Your task to perform on an android device: Open calendar and show me the second week of next month Image 0: 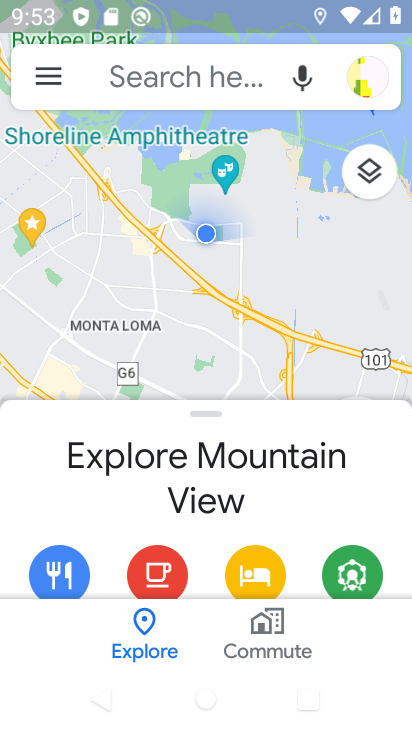
Step 0: press home button
Your task to perform on an android device: Open calendar and show me the second week of next month Image 1: 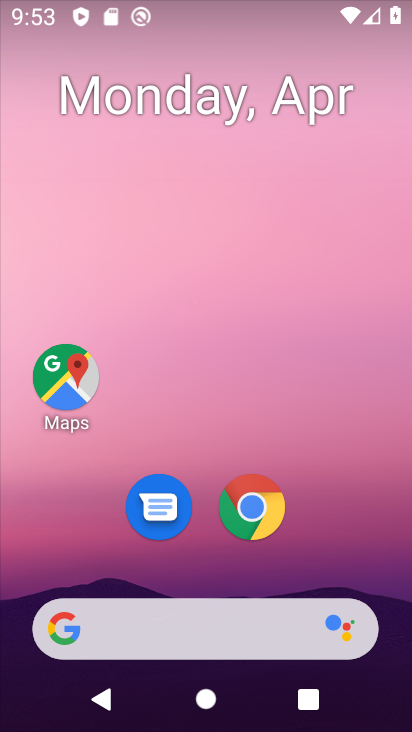
Step 1: drag from (340, 512) to (304, 84)
Your task to perform on an android device: Open calendar and show me the second week of next month Image 2: 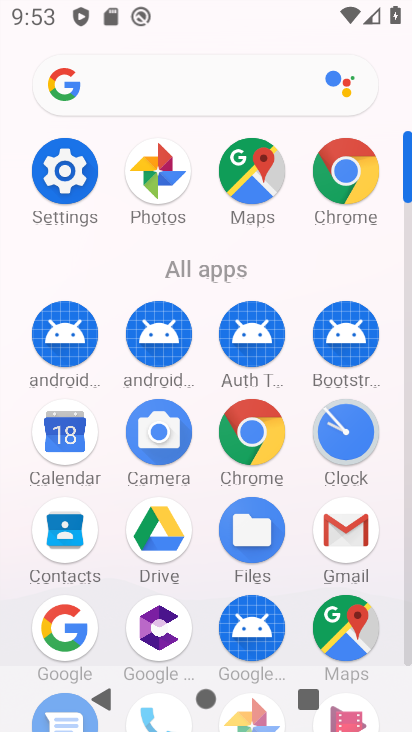
Step 2: click (68, 442)
Your task to perform on an android device: Open calendar and show me the second week of next month Image 3: 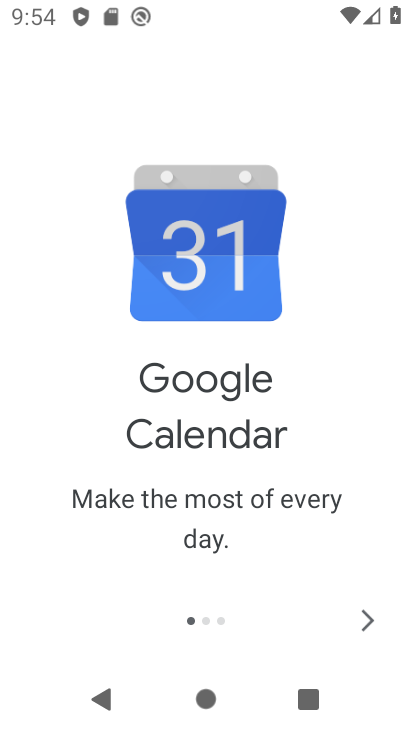
Step 3: click (359, 610)
Your task to perform on an android device: Open calendar and show me the second week of next month Image 4: 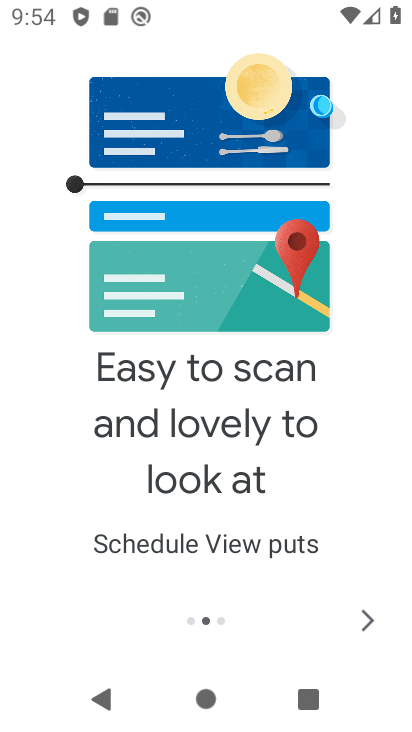
Step 4: click (359, 610)
Your task to perform on an android device: Open calendar and show me the second week of next month Image 5: 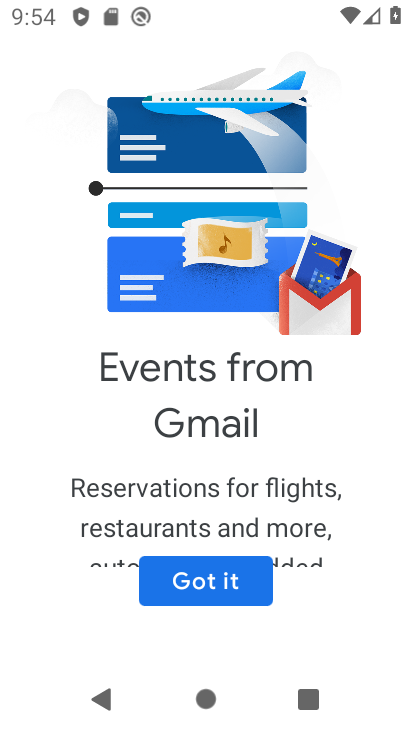
Step 5: click (244, 600)
Your task to perform on an android device: Open calendar and show me the second week of next month Image 6: 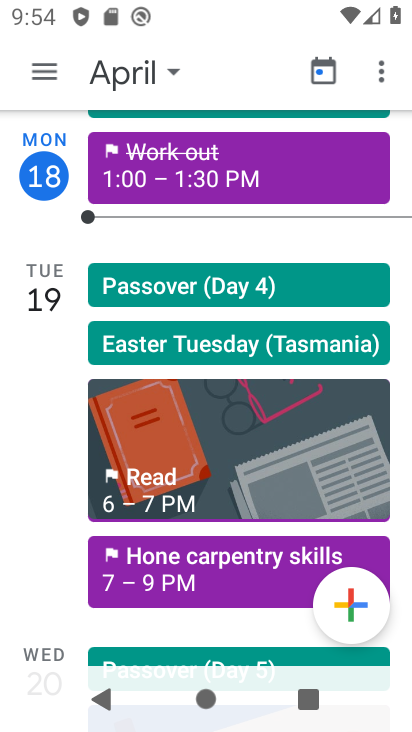
Step 6: click (136, 83)
Your task to perform on an android device: Open calendar and show me the second week of next month Image 7: 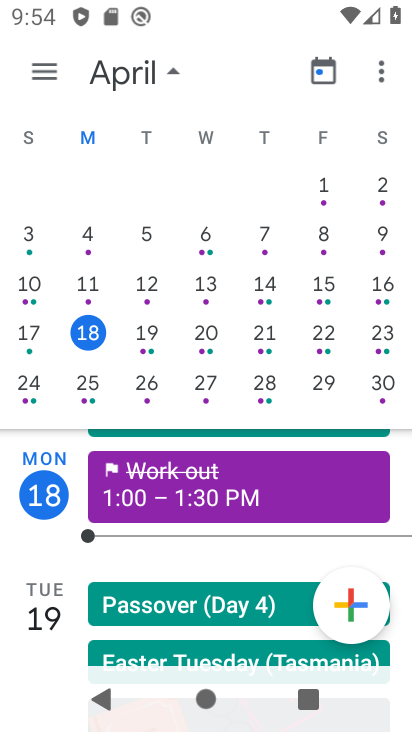
Step 7: drag from (351, 344) to (36, 302)
Your task to perform on an android device: Open calendar and show me the second week of next month Image 8: 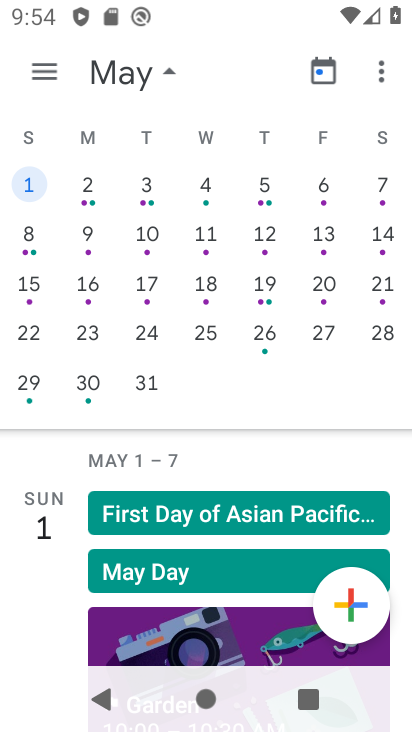
Step 8: click (139, 239)
Your task to perform on an android device: Open calendar and show me the second week of next month Image 9: 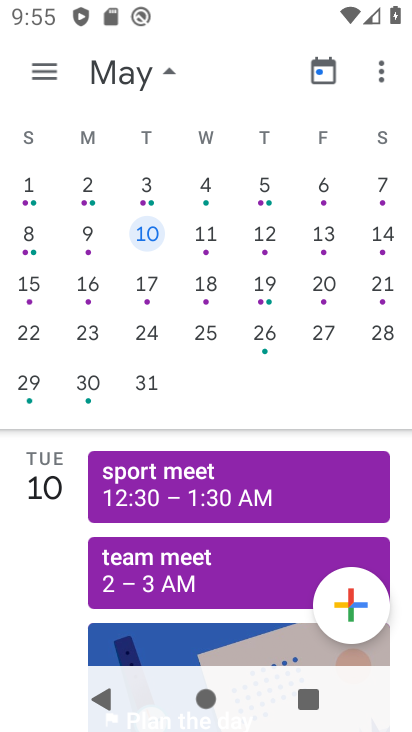
Step 9: click (53, 71)
Your task to perform on an android device: Open calendar and show me the second week of next month Image 10: 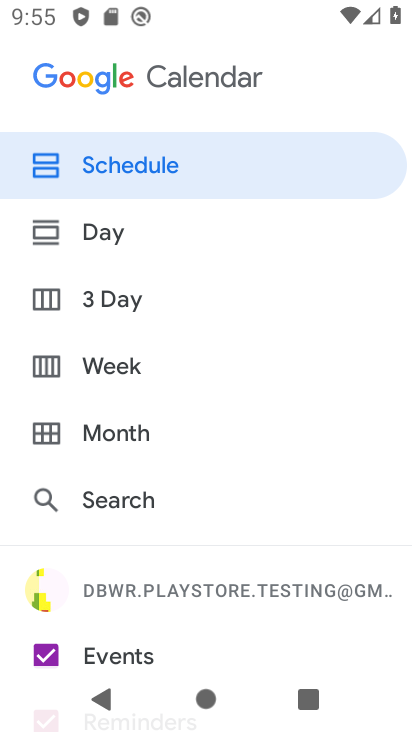
Step 10: click (142, 360)
Your task to perform on an android device: Open calendar and show me the second week of next month Image 11: 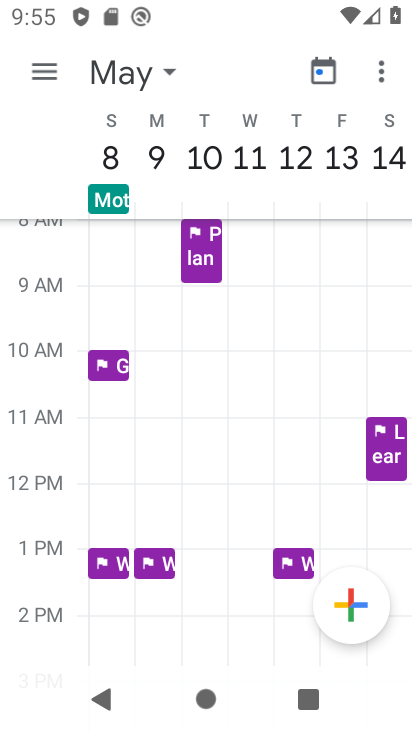
Step 11: task complete